Your task to perform on an android device: What's on my calendar tomorrow? Image 0: 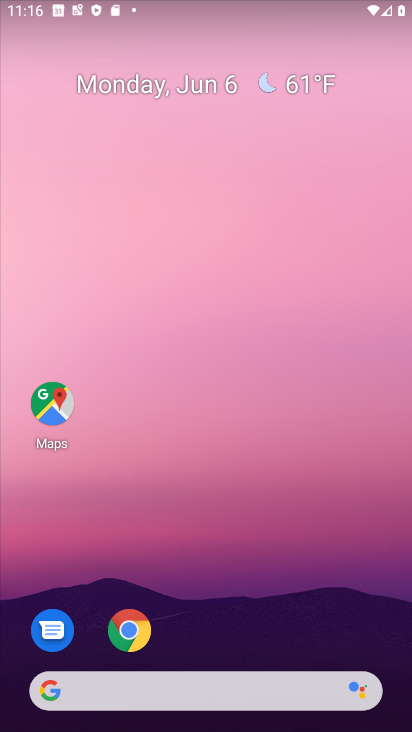
Step 0: drag from (379, 552) to (288, 79)
Your task to perform on an android device: What's on my calendar tomorrow? Image 1: 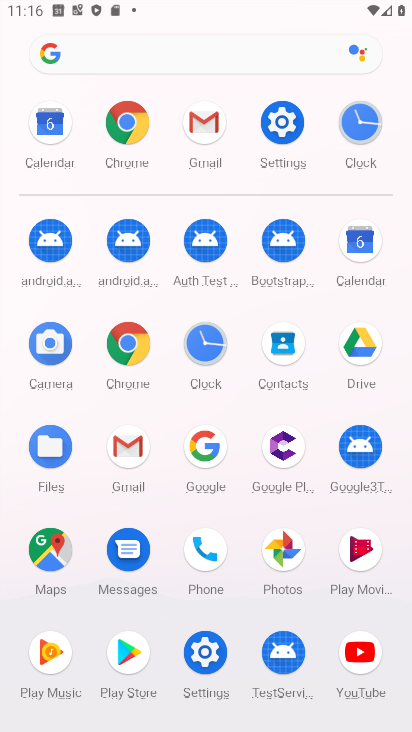
Step 1: click (346, 258)
Your task to perform on an android device: What's on my calendar tomorrow? Image 2: 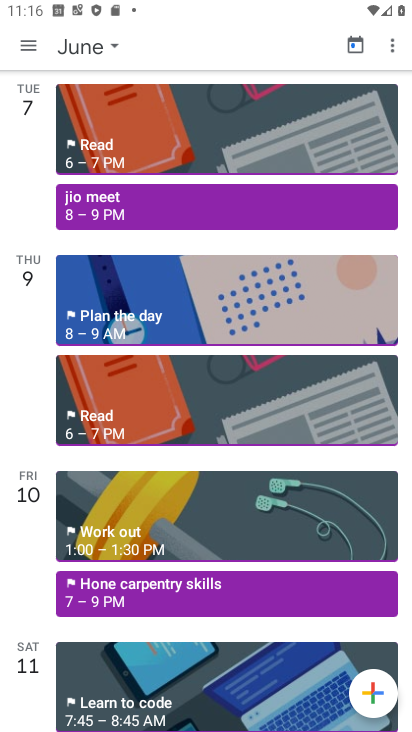
Step 2: task complete